Your task to perform on an android device: Open calendar and show me the first week of next month Image 0: 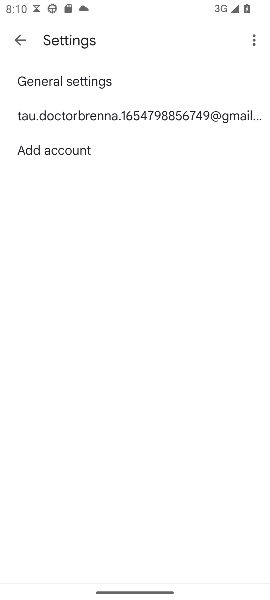
Step 0: press home button
Your task to perform on an android device: Open calendar and show me the first week of next month Image 1: 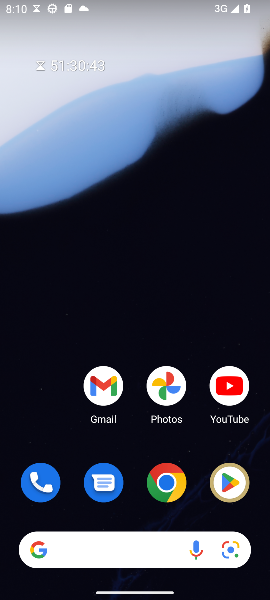
Step 1: drag from (154, 565) to (143, 95)
Your task to perform on an android device: Open calendar and show me the first week of next month Image 2: 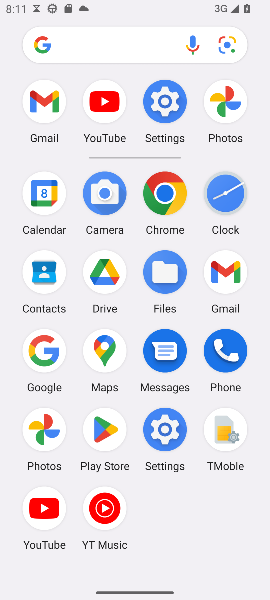
Step 2: click (40, 199)
Your task to perform on an android device: Open calendar and show me the first week of next month Image 3: 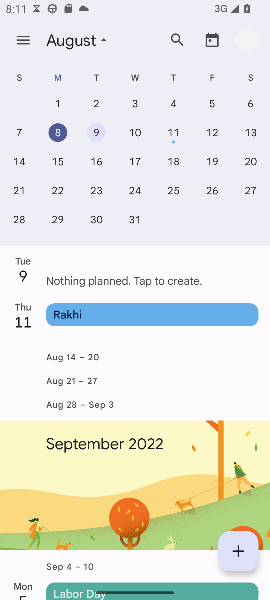
Step 3: drag from (136, 162) to (1, 177)
Your task to perform on an android device: Open calendar and show me the first week of next month Image 4: 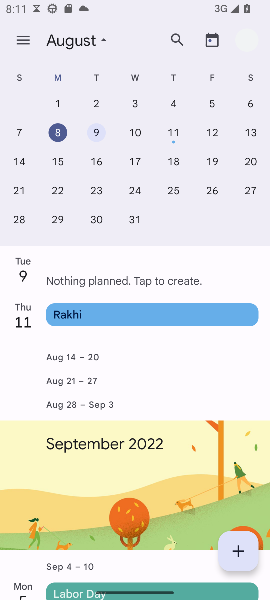
Step 4: drag from (248, 159) to (20, 88)
Your task to perform on an android device: Open calendar and show me the first week of next month Image 5: 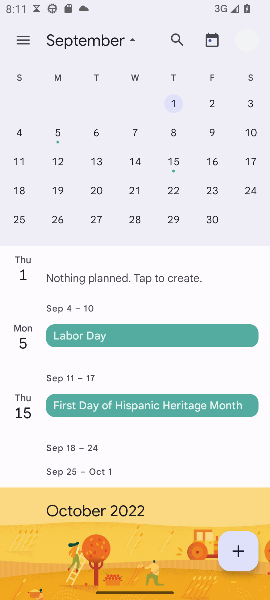
Step 5: click (132, 133)
Your task to perform on an android device: Open calendar and show me the first week of next month Image 6: 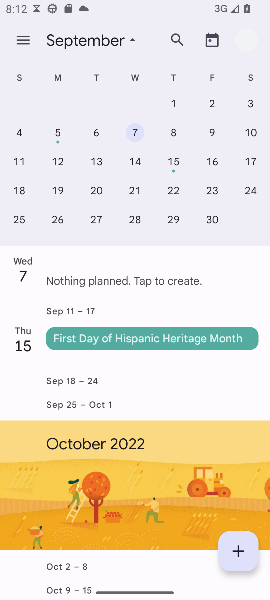
Step 6: task complete